Your task to perform on an android device: turn off data saver in the chrome app Image 0: 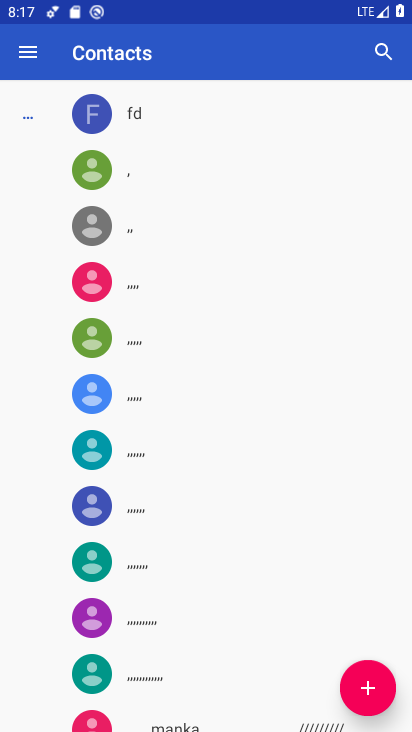
Step 0: press home button
Your task to perform on an android device: turn off data saver in the chrome app Image 1: 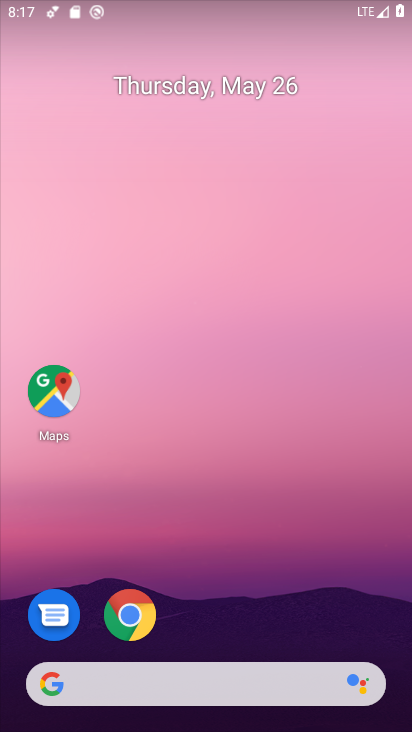
Step 1: click (140, 616)
Your task to perform on an android device: turn off data saver in the chrome app Image 2: 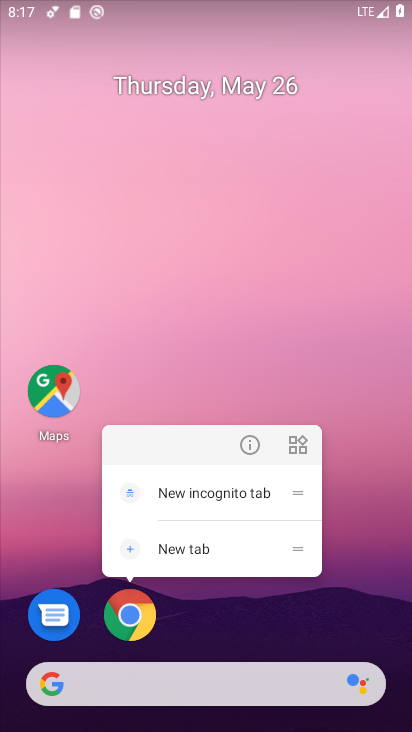
Step 2: click (135, 622)
Your task to perform on an android device: turn off data saver in the chrome app Image 3: 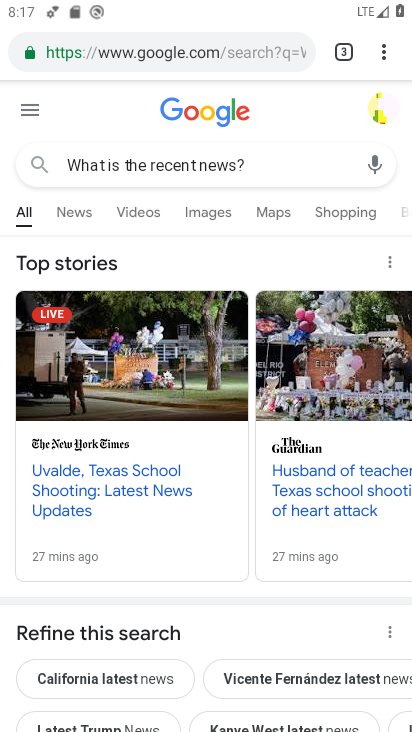
Step 3: click (390, 49)
Your task to perform on an android device: turn off data saver in the chrome app Image 4: 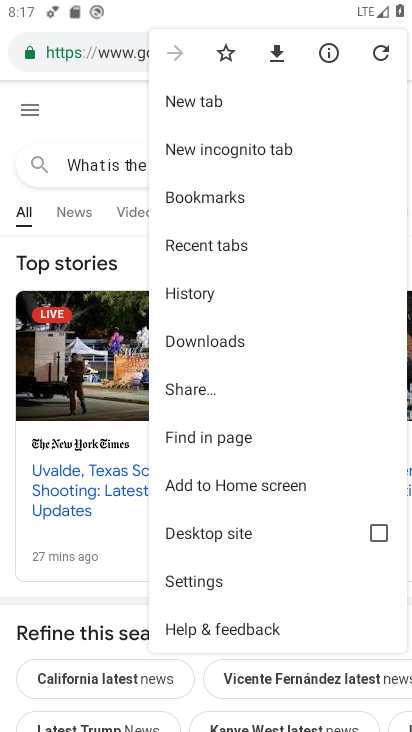
Step 4: click (254, 572)
Your task to perform on an android device: turn off data saver in the chrome app Image 5: 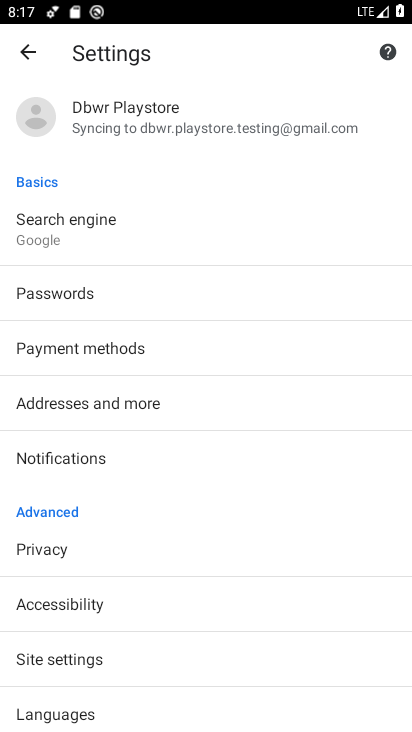
Step 5: drag from (177, 568) to (226, 216)
Your task to perform on an android device: turn off data saver in the chrome app Image 6: 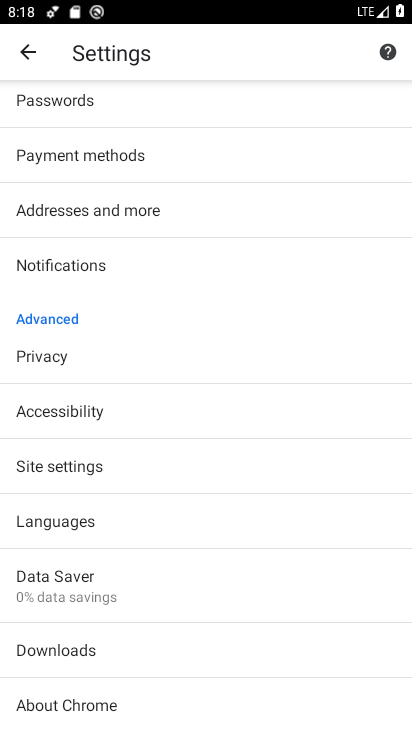
Step 6: click (110, 580)
Your task to perform on an android device: turn off data saver in the chrome app Image 7: 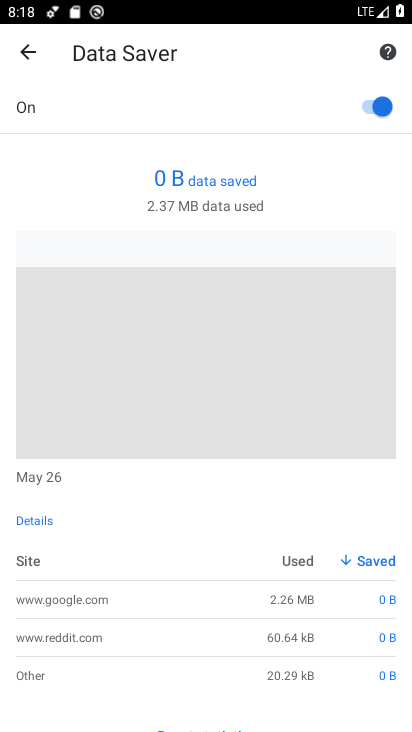
Step 7: click (378, 107)
Your task to perform on an android device: turn off data saver in the chrome app Image 8: 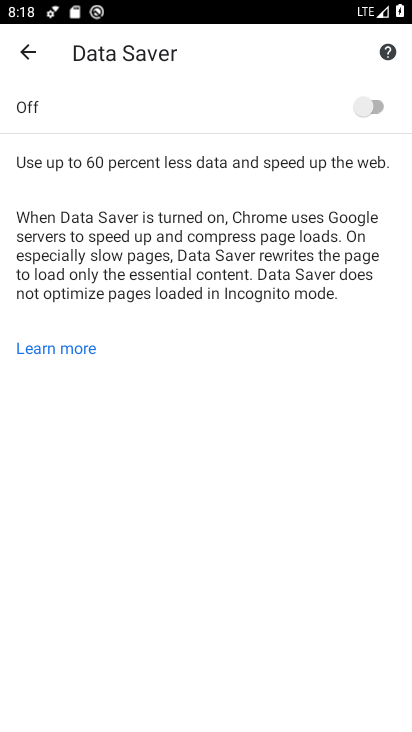
Step 8: task complete